Your task to perform on an android device: Do I have any events this weekend? Image 0: 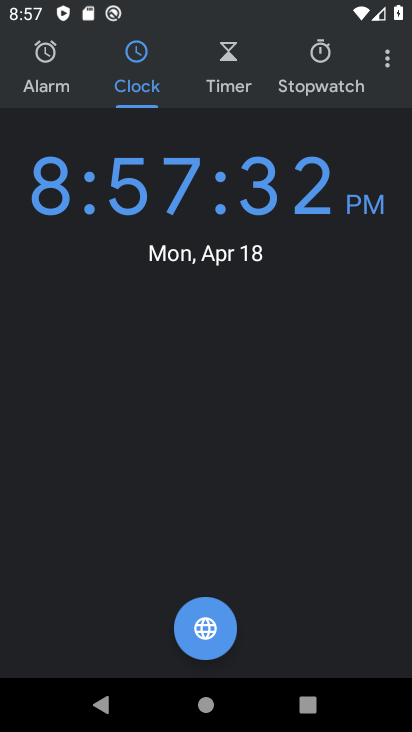
Step 0: click (96, 704)
Your task to perform on an android device: Do I have any events this weekend? Image 1: 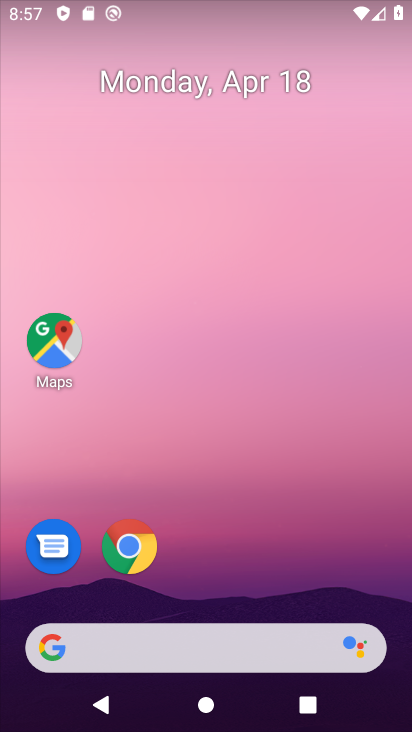
Step 1: drag from (315, 300) to (298, 66)
Your task to perform on an android device: Do I have any events this weekend? Image 2: 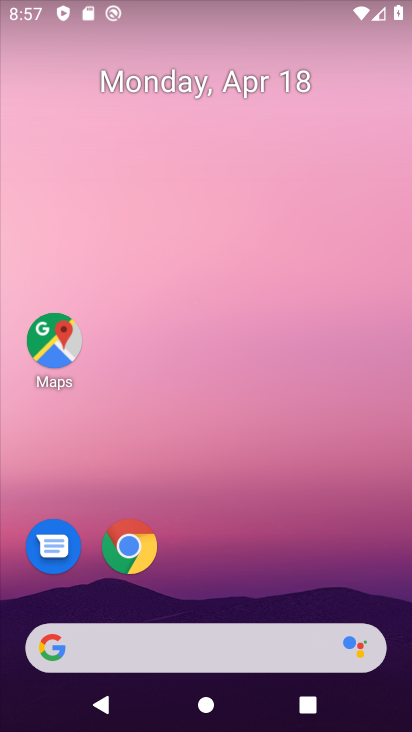
Step 2: drag from (338, 544) to (298, 66)
Your task to perform on an android device: Do I have any events this weekend? Image 3: 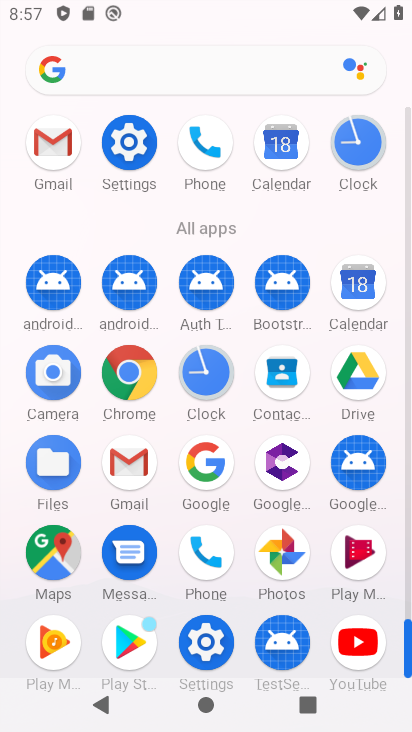
Step 3: click (284, 146)
Your task to perform on an android device: Do I have any events this weekend? Image 4: 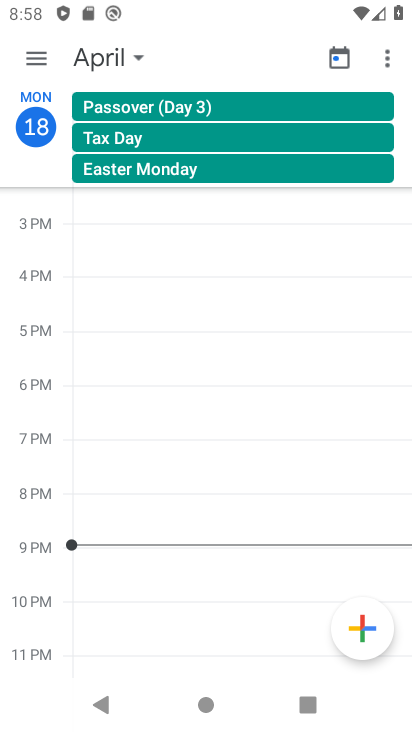
Step 4: click (107, 53)
Your task to perform on an android device: Do I have any events this weekend? Image 5: 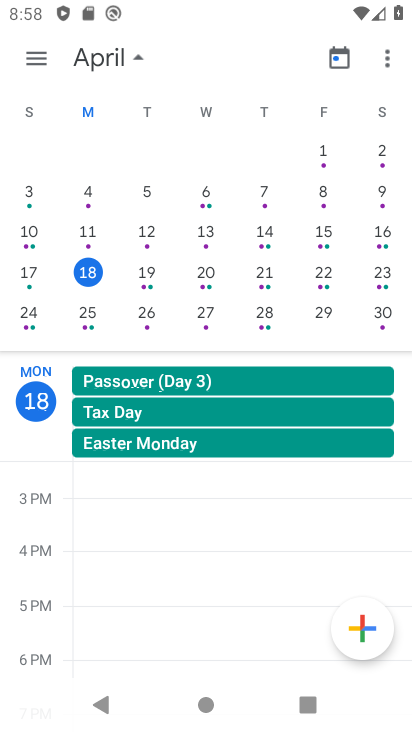
Step 5: click (150, 278)
Your task to perform on an android device: Do I have any events this weekend? Image 6: 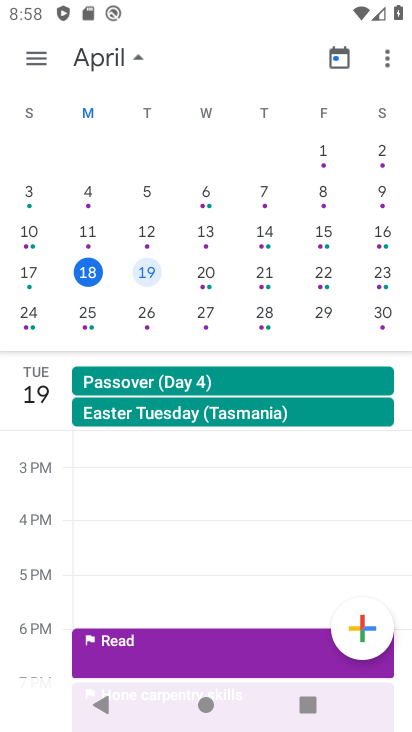
Step 6: task complete